Your task to perform on an android device: add a label to a message in the gmail app Image 0: 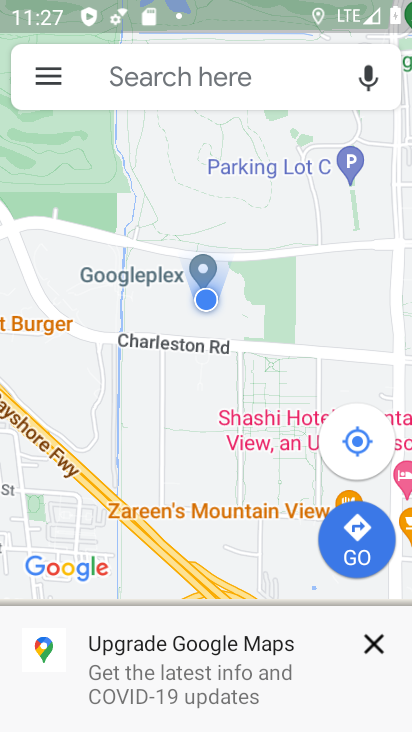
Step 0: press home button
Your task to perform on an android device: add a label to a message in the gmail app Image 1: 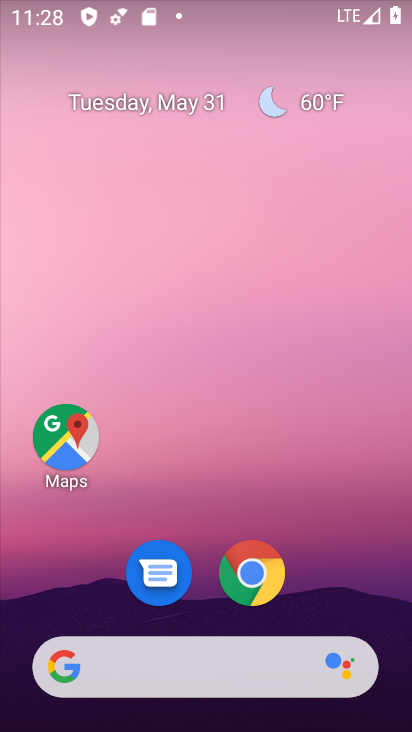
Step 1: drag from (198, 626) to (203, 87)
Your task to perform on an android device: add a label to a message in the gmail app Image 2: 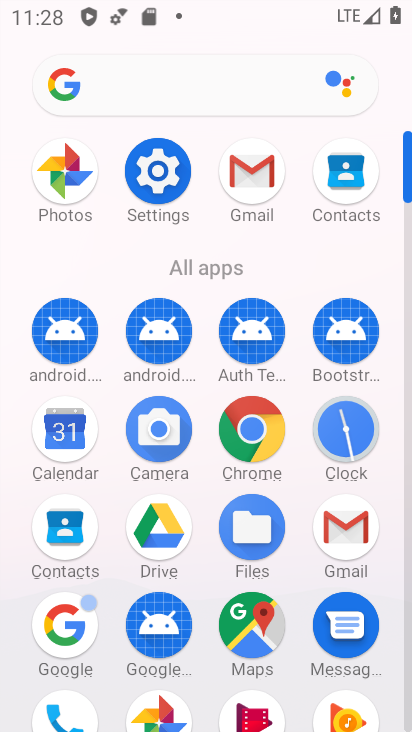
Step 2: click (252, 189)
Your task to perform on an android device: add a label to a message in the gmail app Image 3: 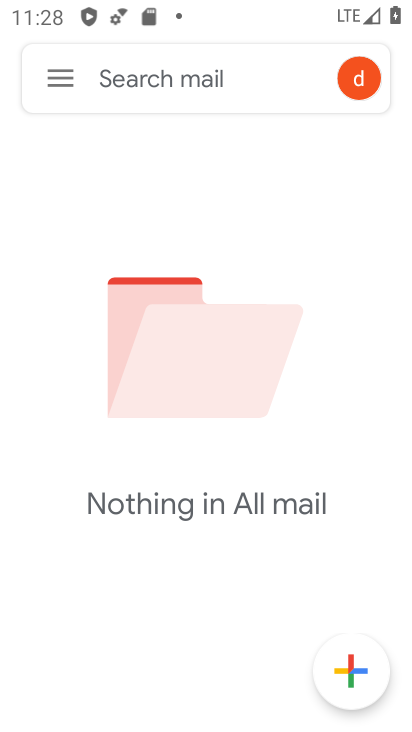
Step 3: click (61, 82)
Your task to perform on an android device: add a label to a message in the gmail app Image 4: 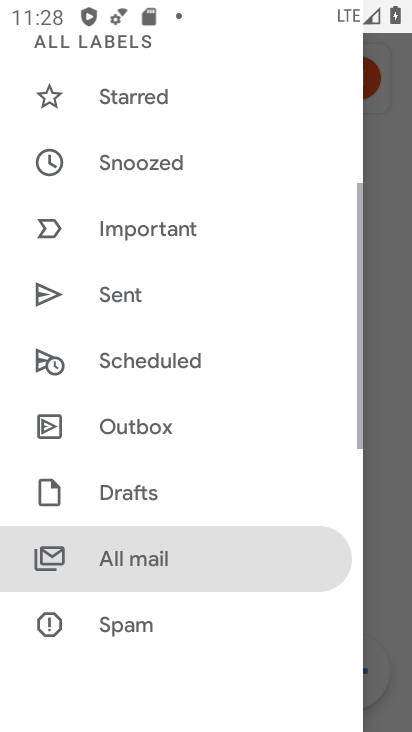
Step 4: drag from (143, 216) to (153, 519)
Your task to perform on an android device: add a label to a message in the gmail app Image 5: 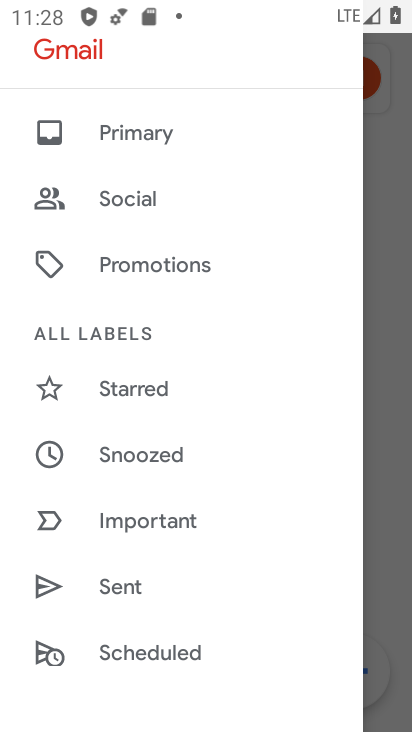
Step 5: drag from (166, 183) to (167, 528)
Your task to perform on an android device: add a label to a message in the gmail app Image 6: 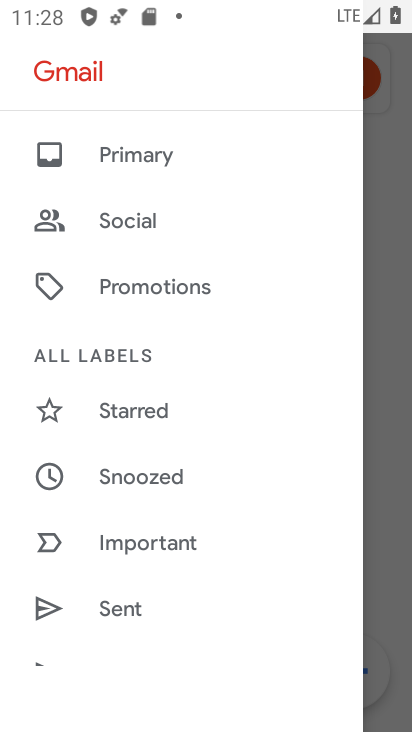
Step 6: click (165, 191)
Your task to perform on an android device: add a label to a message in the gmail app Image 7: 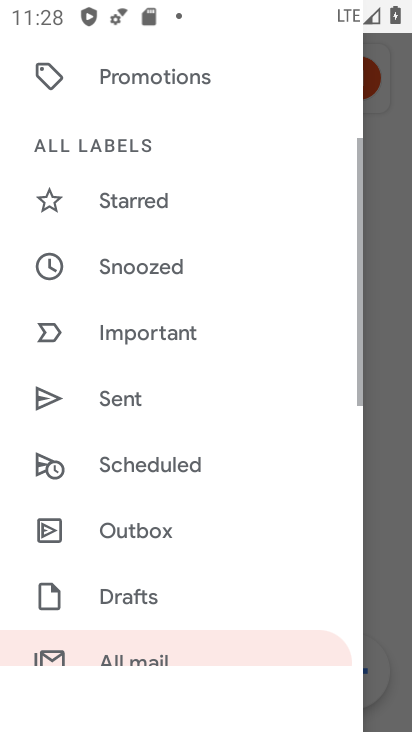
Step 7: drag from (145, 516) to (161, 273)
Your task to perform on an android device: add a label to a message in the gmail app Image 8: 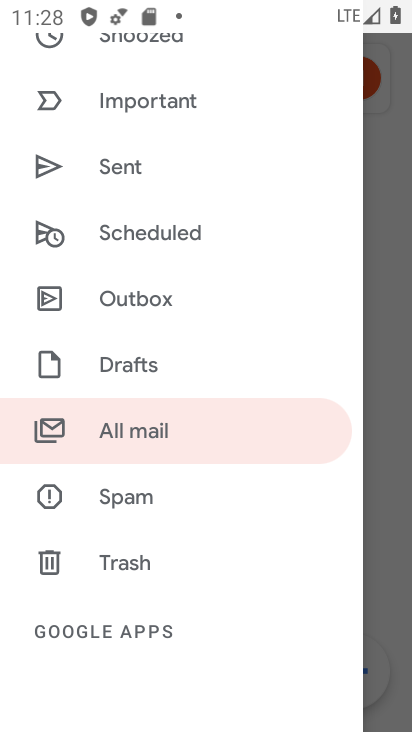
Step 8: click (133, 438)
Your task to perform on an android device: add a label to a message in the gmail app Image 9: 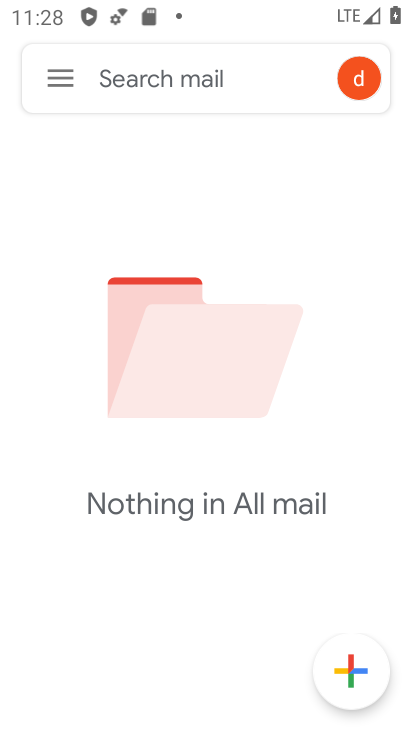
Step 9: task complete